Your task to perform on an android device: Open Android settings Image 0: 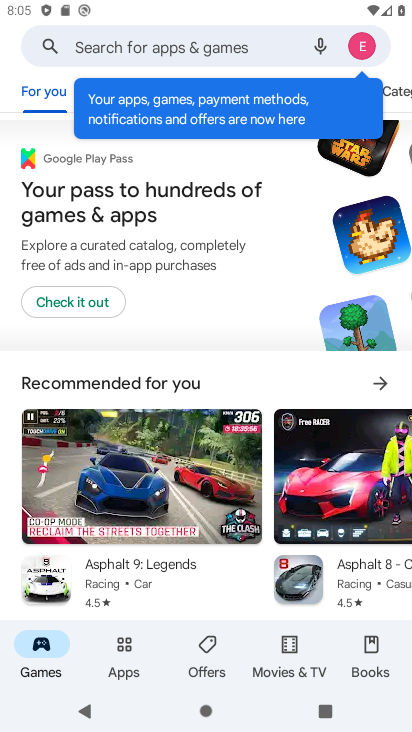
Step 0: press home button
Your task to perform on an android device: Open Android settings Image 1: 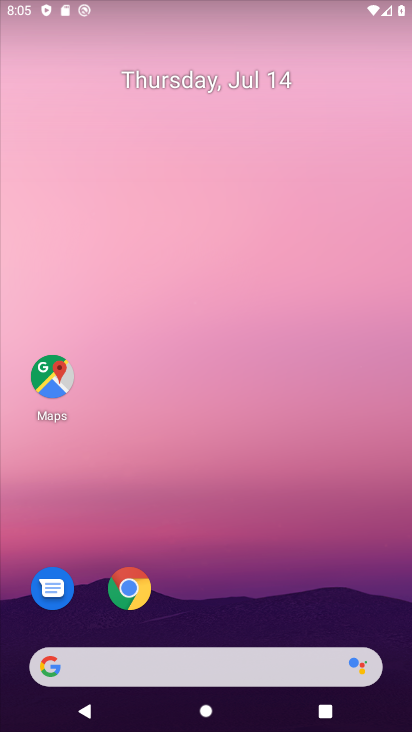
Step 1: drag from (183, 603) to (264, 36)
Your task to perform on an android device: Open Android settings Image 2: 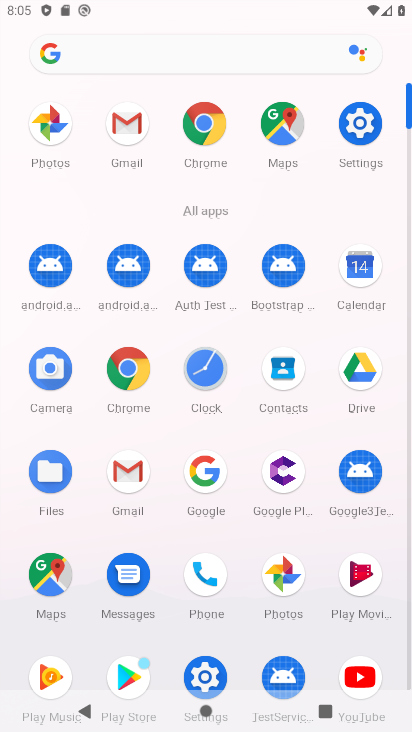
Step 2: click (205, 667)
Your task to perform on an android device: Open Android settings Image 3: 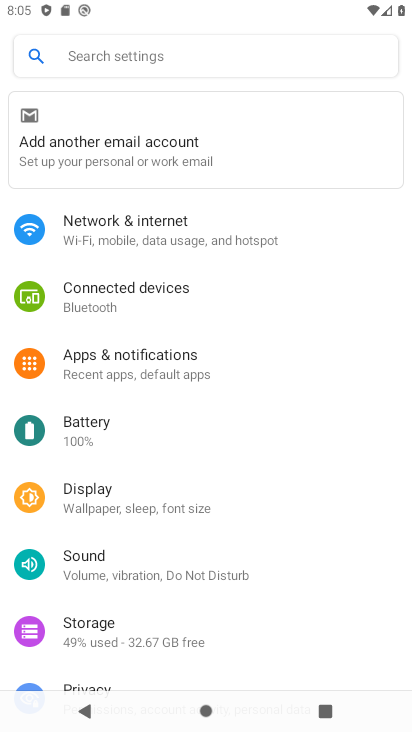
Step 3: drag from (146, 577) to (160, 144)
Your task to perform on an android device: Open Android settings Image 4: 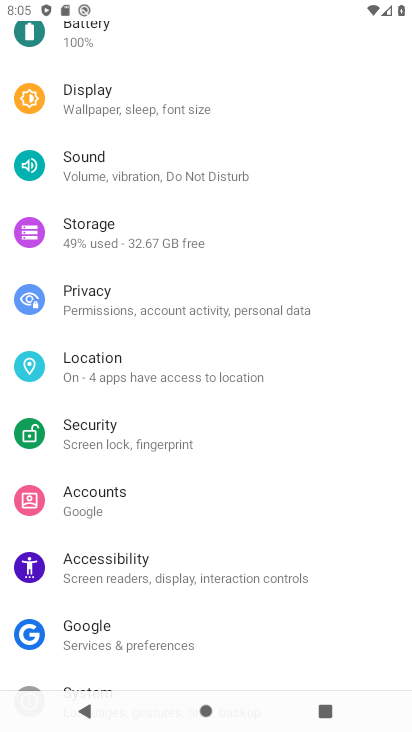
Step 4: drag from (126, 607) to (145, 125)
Your task to perform on an android device: Open Android settings Image 5: 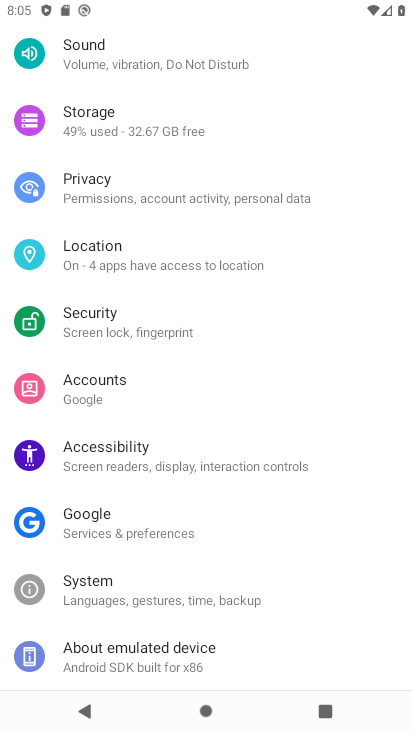
Step 5: click (149, 644)
Your task to perform on an android device: Open Android settings Image 6: 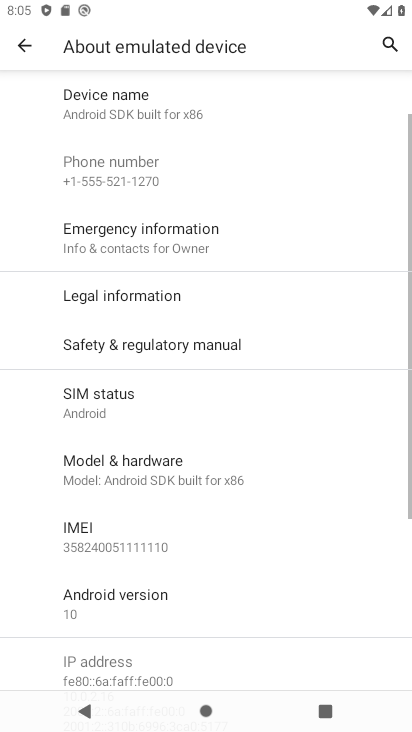
Step 6: click (124, 604)
Your task to perform on an android device: Open Android settings Image 7: 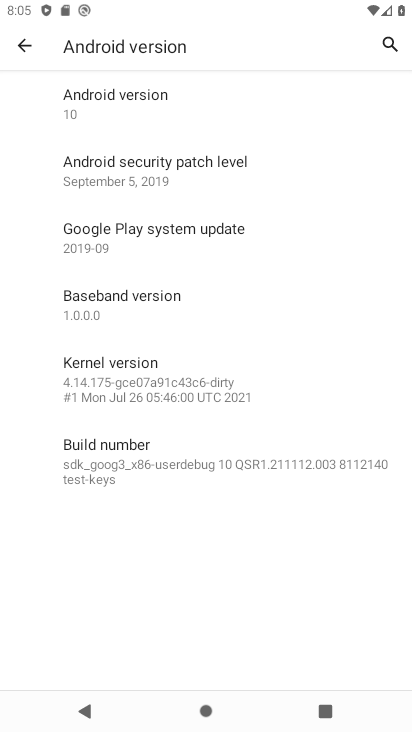
Step 7: task complete